Your task to perform on an android device: Open the web browser Image 0: 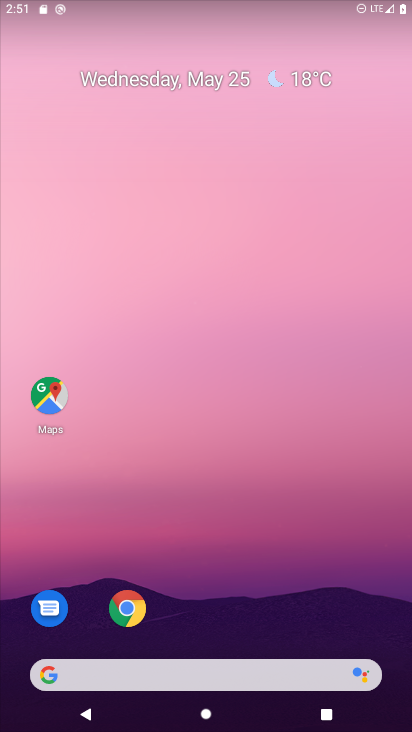
Step 0: click (127, 607)
Your task to perform on an android device: Open the web browser Image 1: 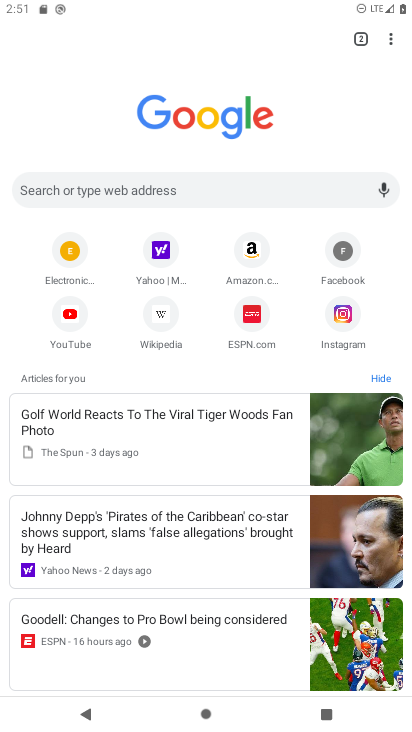
Step 1: task complete